Your task to perform on an android device: Open calendar and show me the first week of next month Image 0: 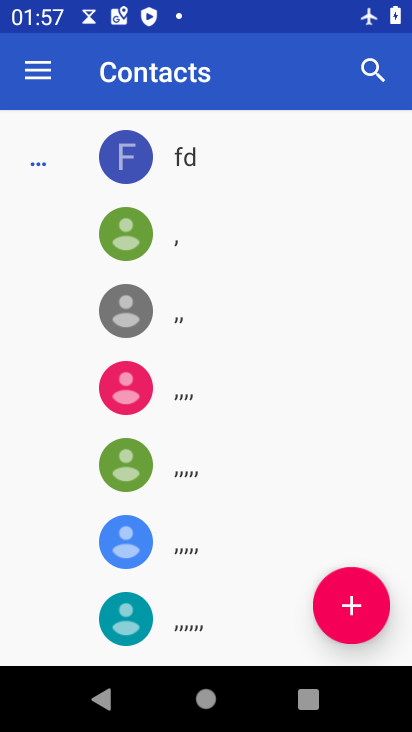
Step 0: press home button
Your task to perform on an android device: Open calendar and show me the first week of next month Image 1: 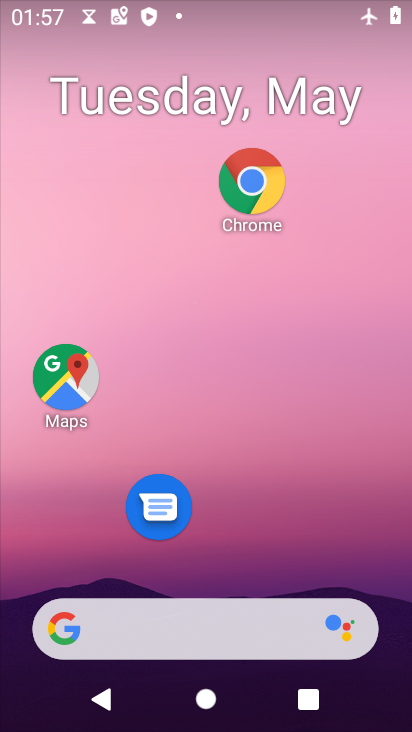
Step 1: drag from (277, 570) to (274, 362)
Your task to perform on an android device: Open calendar and show me the first week of next month Image 2: 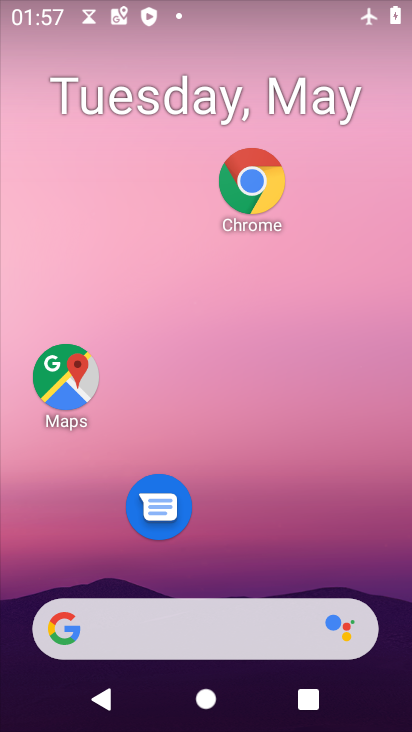
Step 2: drag from (230, 567) to (227, 275)
Your task to perform on an android device: Open calendar and show me the first week of next month Image 3: 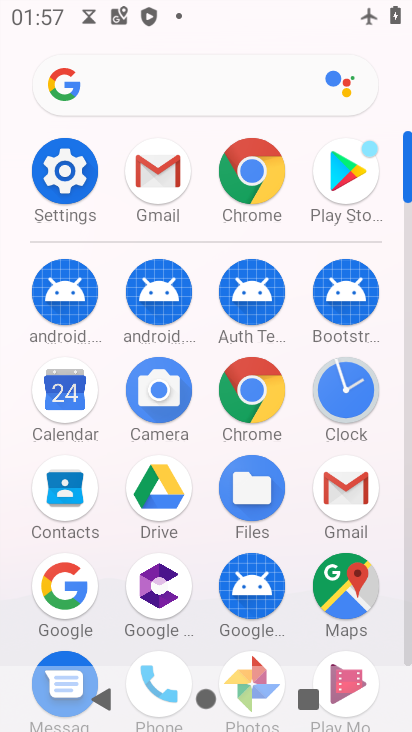
Step 3: click (66, 376)
Your task to perform on an android device: Open calendar and show me the first week of next month Image 4: 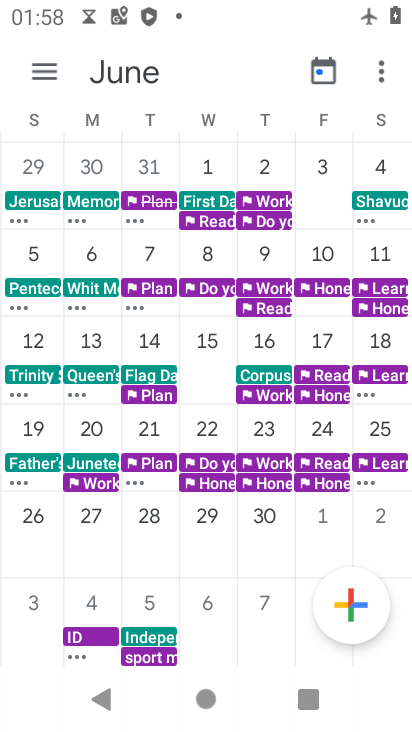
Step 4: task complete